Your task to perform on an android device: turn off picture-in-picture Image 0: 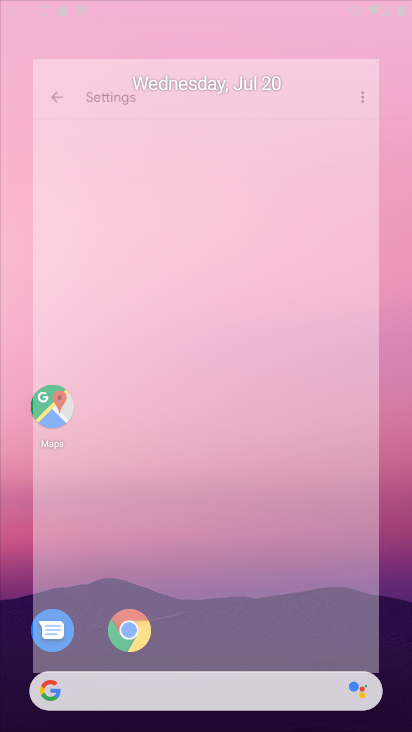
Step 0: drag from (331, 640) to (290, 84)
Your task to perform on an android device: turn off picture-in-picture Image 1: 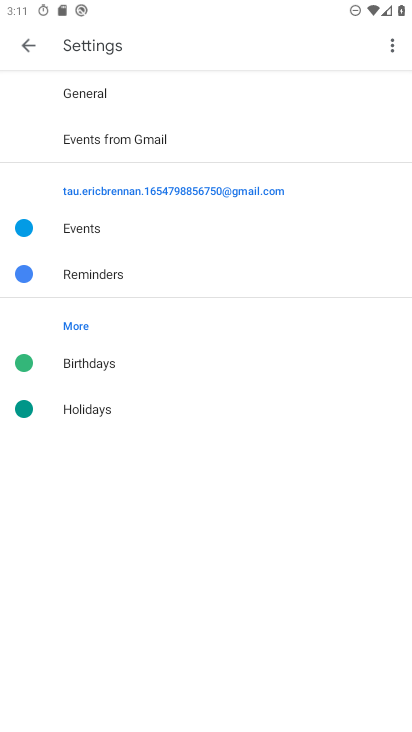
Step 1: click (35, 50)
Your task to perform on an android device: turn off picture-in-picture Image 2: 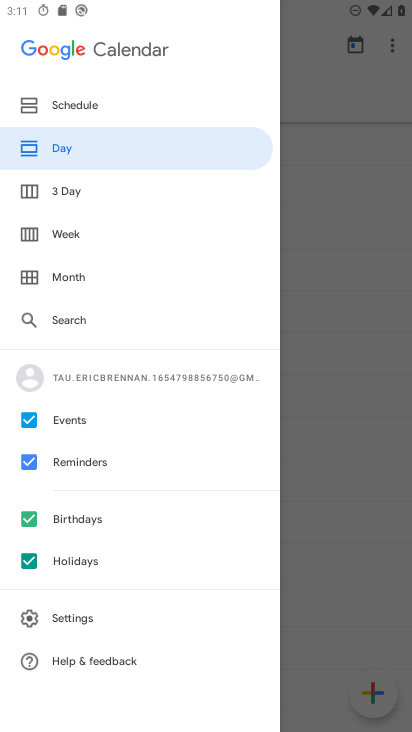
Step 2: click (306, 456)
Your task to perform on an android device: turn off picture-in-picture Image 3: 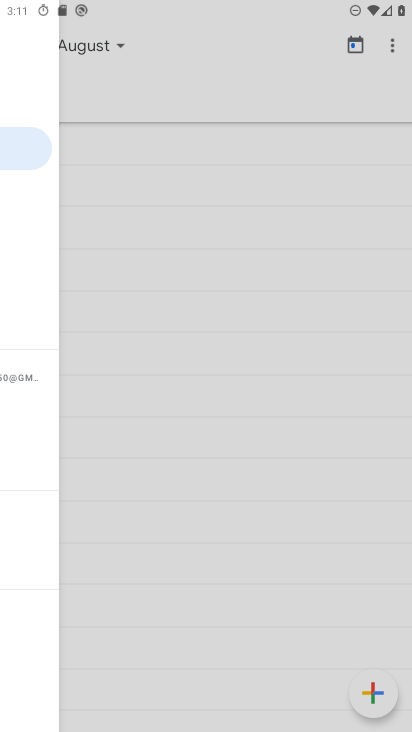
Step 3: click (317, 369)
Your task to perform on an android device: turn off picture-in-picture Image 4: 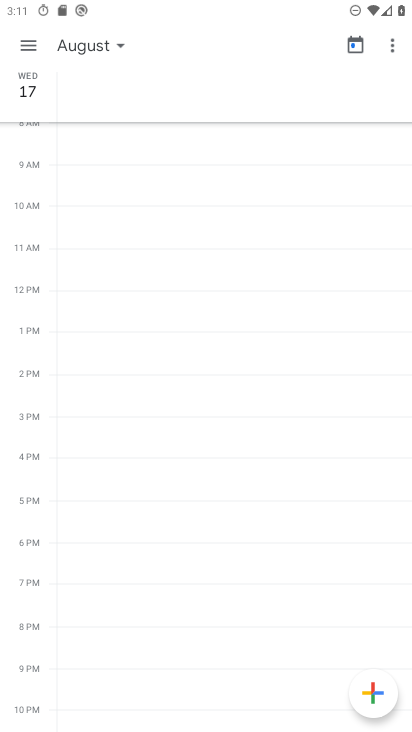
Step 4: click (294, 259)
Your task to perform on an android device: turn off picture-in-picture Image 5: 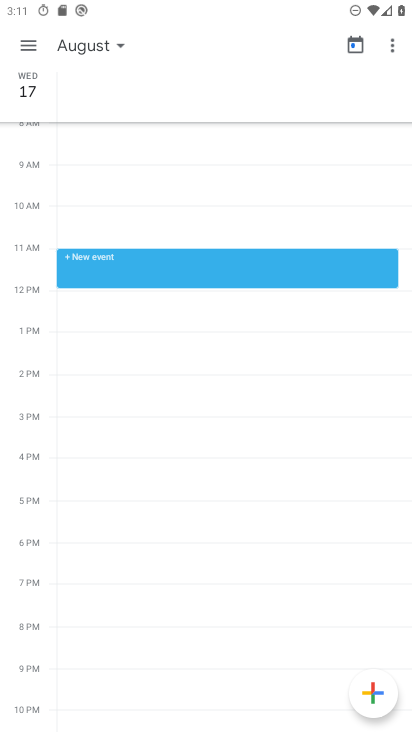
Step 5: press back button
Your task to perform on an android device: turn off picture-in-picture Image 6: 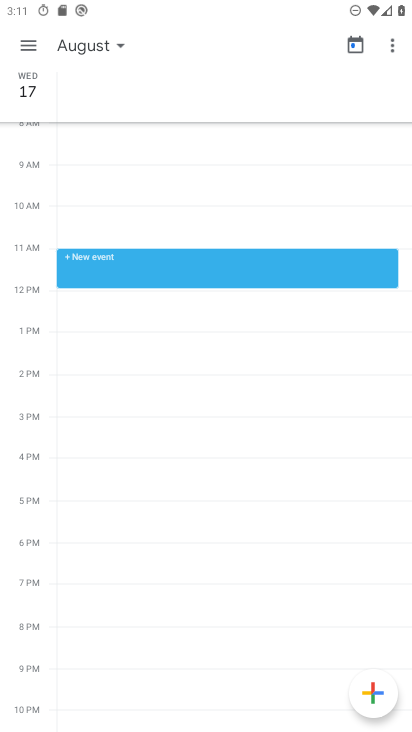
Step 6: press back button
Your task to perform on an android device: turn off picture-in-picture Image 7: 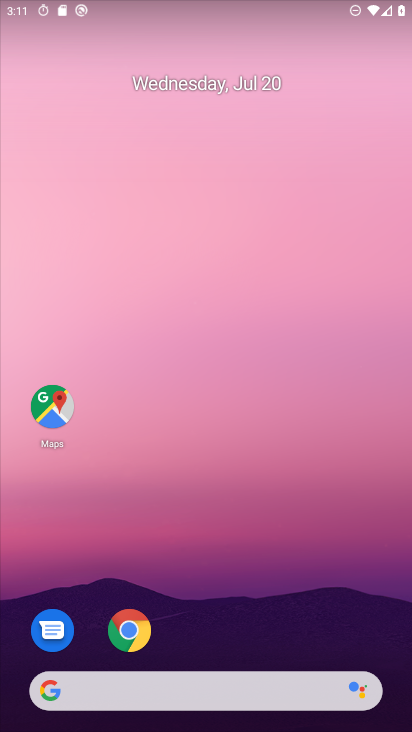
Step 7: drag from (209, 669) to (176, 347)
Your task to perform on an android device: turn off picture-in-picture Image 8: 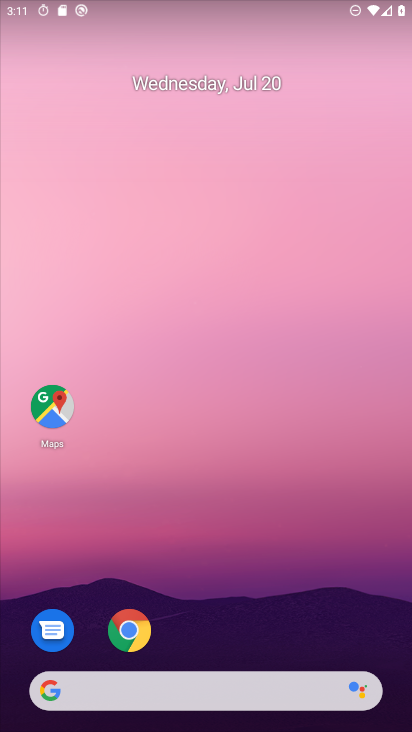
Step 8: drag from (253, 670) to (215, 50)
Your task to perform on an android device: turn off picture-in-picture Image 9: 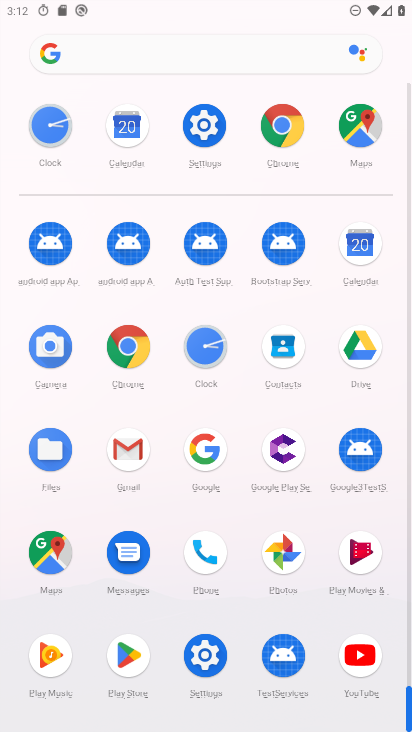
Step 9: click (125, 346)
Your task to perform on an android device: turn off picture-in-picture Image 10: 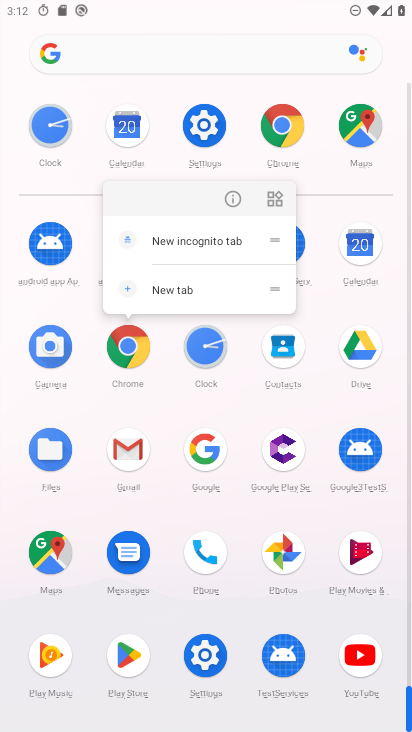
Step 10: click (234, 193)
Your task to perform on an android device: turn off picture-in-picture Image 11: 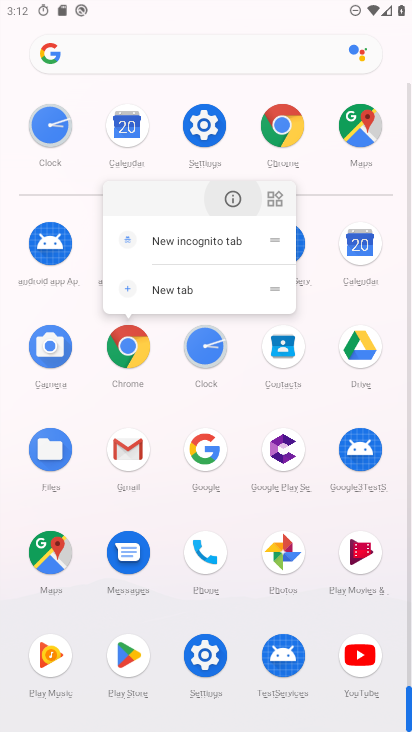
Step 11: click (230, 188)
Your task to perform on an android device: turn off picture-in-picture Image 12: 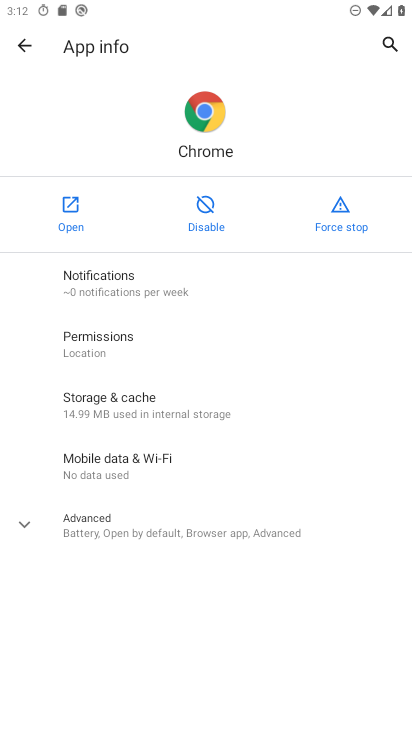
Step 12: click (118, 519)
Your task to perform on an android device: turn off picture-in-picture Image 13: 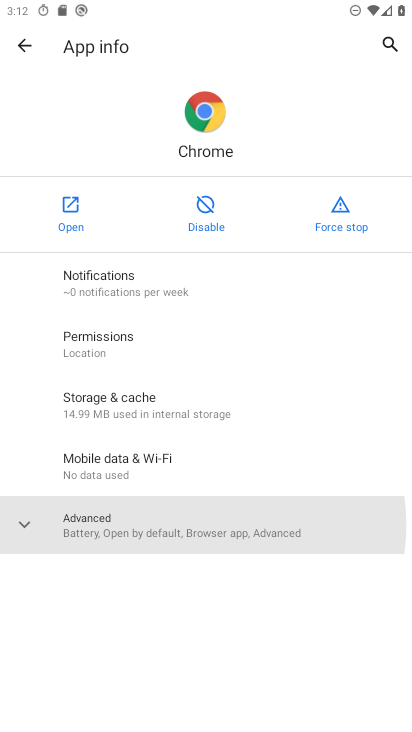
Step 13: click (117, 521)
Your task to perform on an android device: turn off picture-in-picture Image 14: 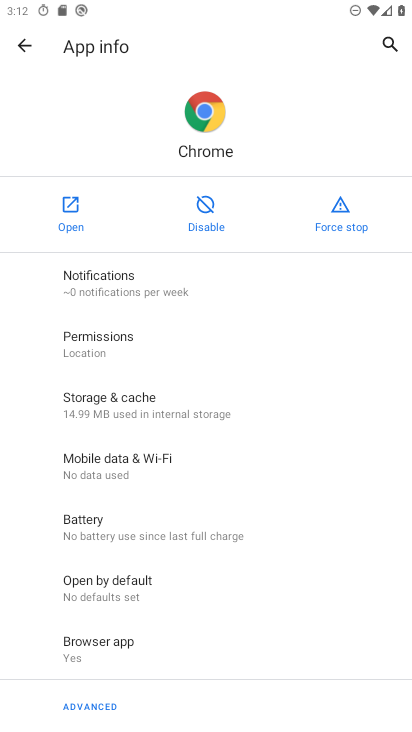
Step 14: drag from (172, 643) to (153, 293)
Your task to perform on an android device: turn off picture-in-picture Image 15: 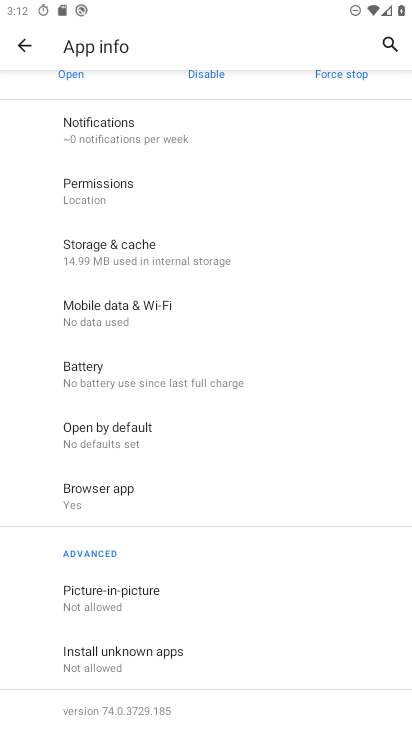
Step 15: click (87, 597)
Your task to perform on an android device: turn off picture-in-picture Image 16: 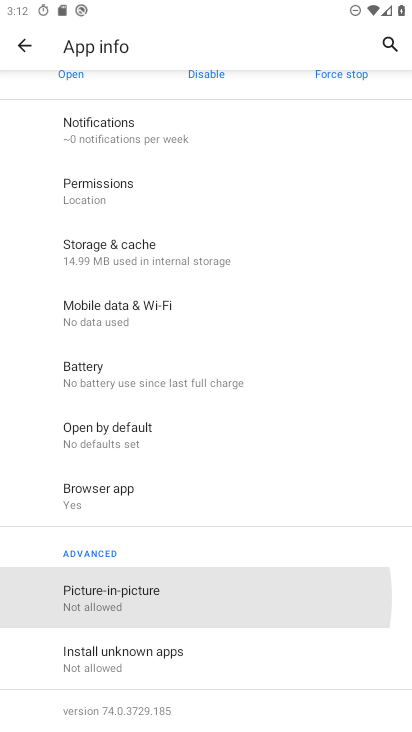
Step 16: click (87, 597)
Your task to perform on an android device: turn off picture-in-picture Image 17: 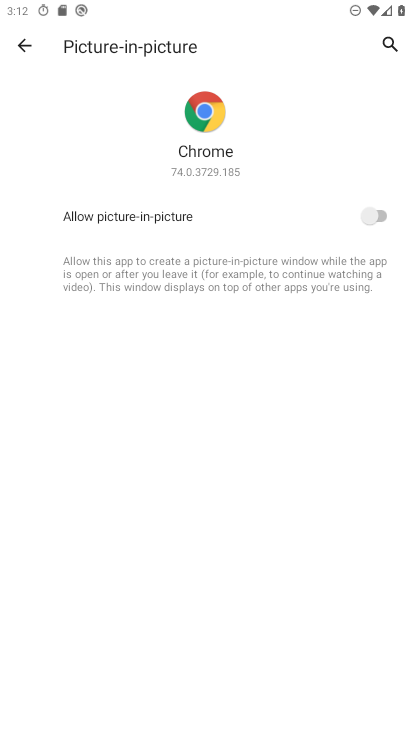
Step 17: task complete